Your task to perform on an android device: turn off data saver in the chrome app Image 0: 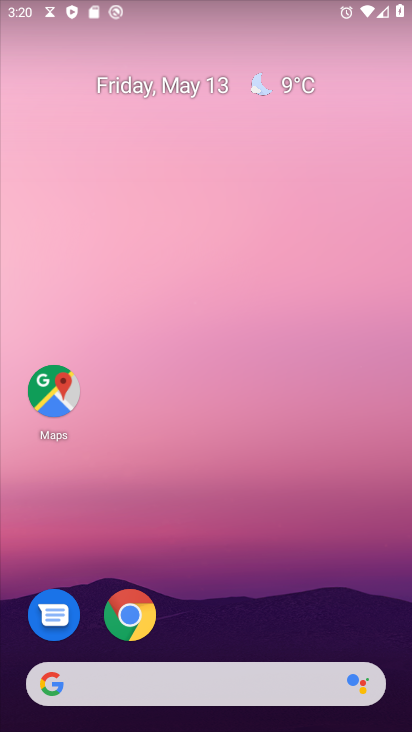
Step 0: click (130, 616)
Your task to perform on an android device: turn off data saver in the chrome app Image 1: 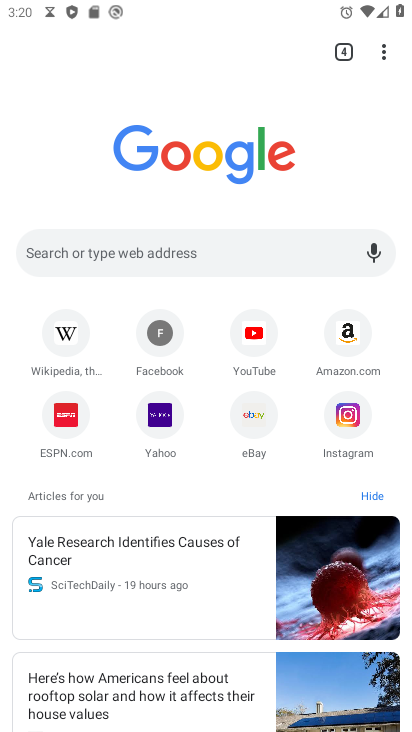
Step 1: click (384, 56)
Your task to perform on an android device: turn off data saver in the chrome app Image 2: 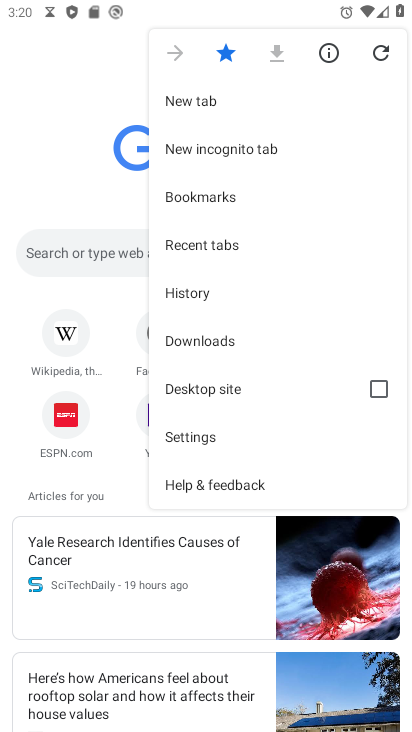
Step 2: click (198, 437)
Your task to perform on an android device: turn off data saver in the chrome app Image 3: 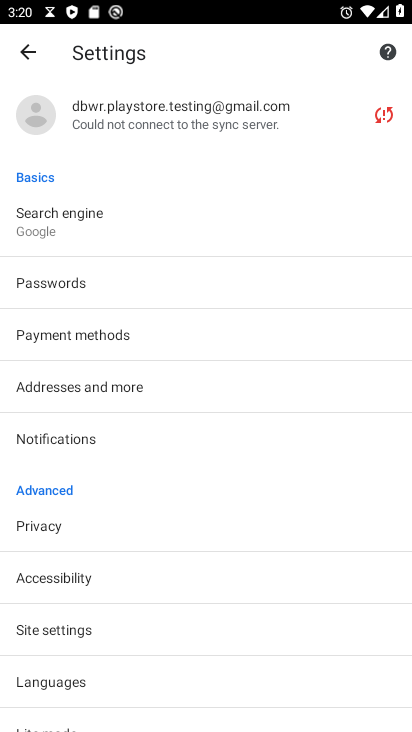
Step 3: drag from (135, 644) to (131, 362)
Your task to perform on an android device: turn off data saver in the chrome app Image 4: 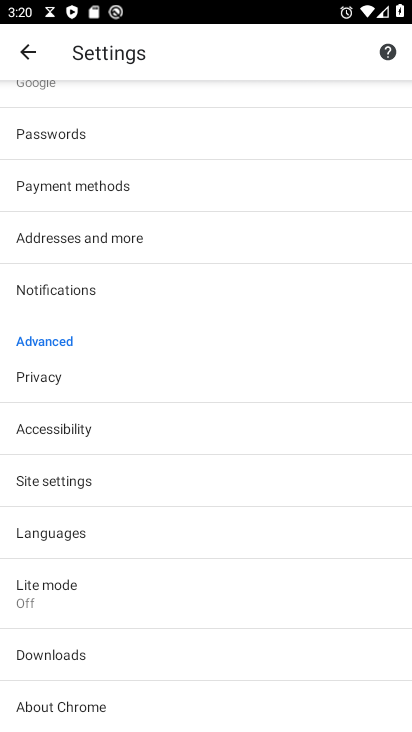
Step 4: click (60, 584)
Your task to perform on an android device: turn off data saver in the chrome app Image 5: 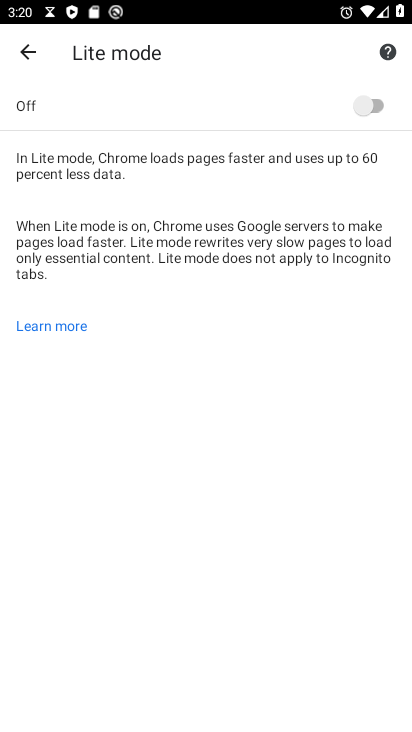
Step 5: task complete